Your task to perform on an android device: Show me productivity apps on the Play Store Image 0: 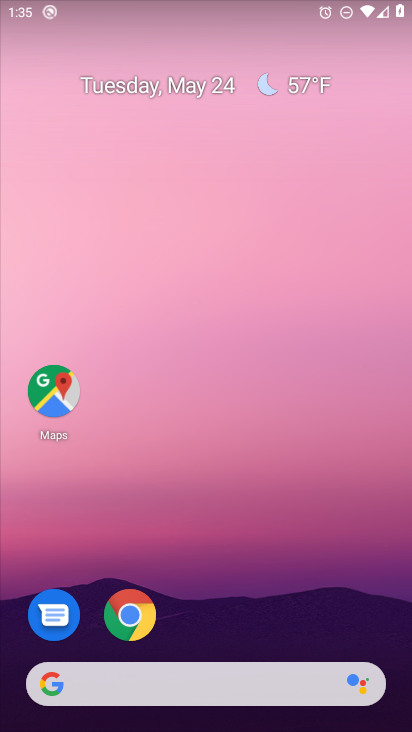
Step 0: drag from (229, 666) to (229, 235)
Your task to perform on an android device: Show me productivity apps on the Play Store Image 1: 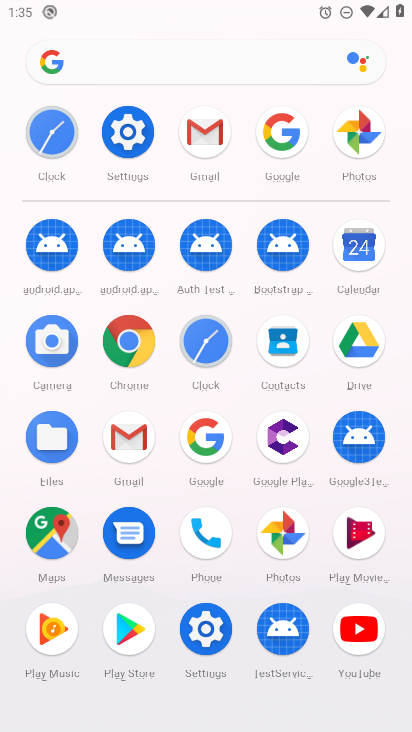
Step 1: click (141, 645)
Your task to perform on an android device: Show me productivity apps on the Play Store Image 2: 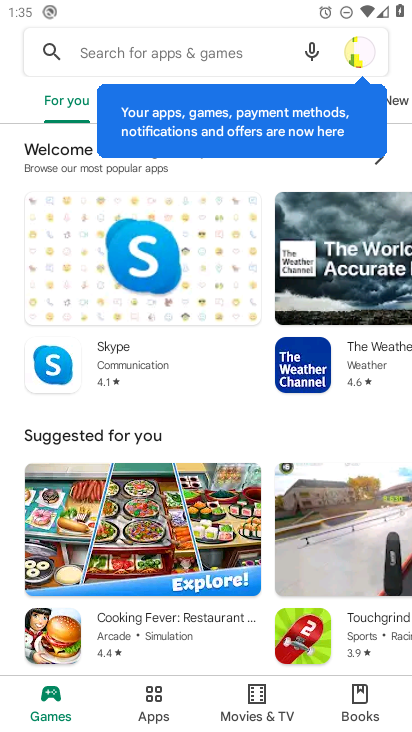
Step 2: click (148, 691)
Your task to perform on an android device: Show me productivity apps on the Play Store Image 3: 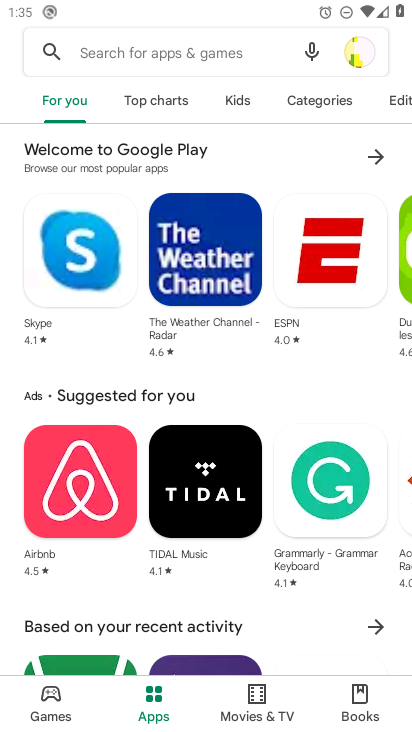
Step 3: task complete